Your task to perform on an android device: open sync settings in chrome Image 0: 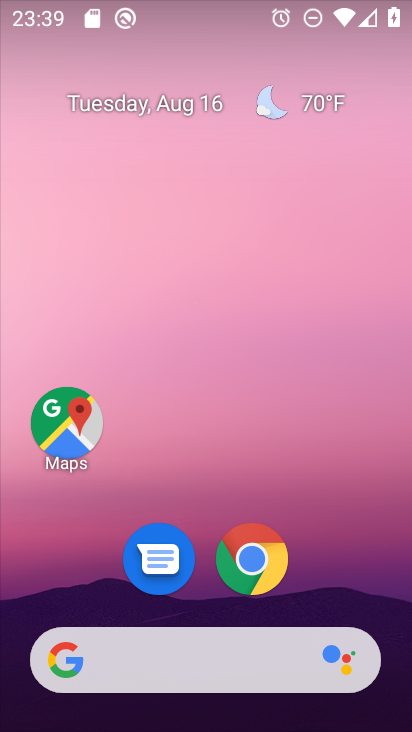
Step 0: click (247, 559)
Your task to perform on an android device: open sync settings in chrome Image 1: 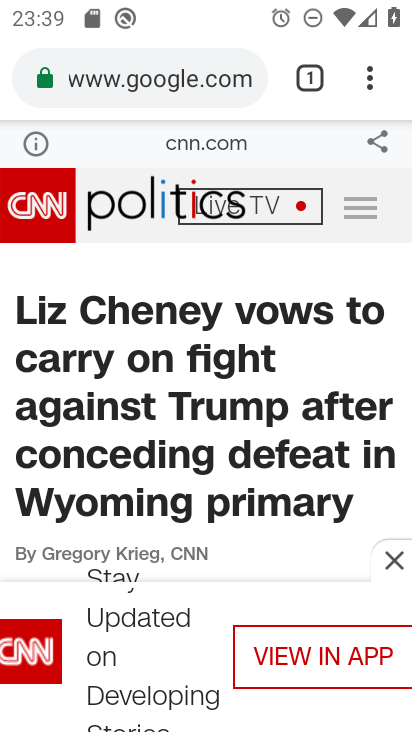
Step 1: click (386, 83)
Your task to perform on an android device: open sync settings in chrome Image 2: 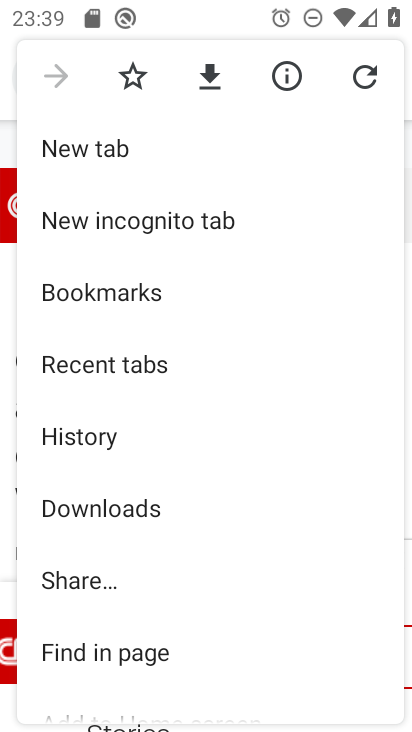
Step 2: drag from (116, 420) to (154, 367)
Your task to perform on an android device: open sync settings in chrome Image 3: 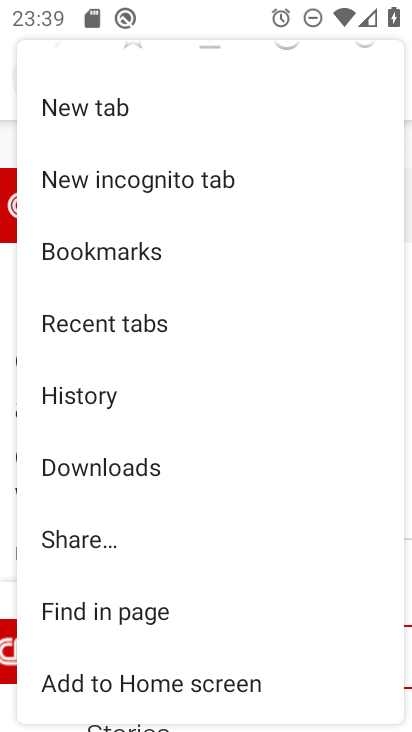
Step 3: drag from (121, 432) to (163, 364)
Your task to perform on an android device: open sync settings in chrome Image 4: 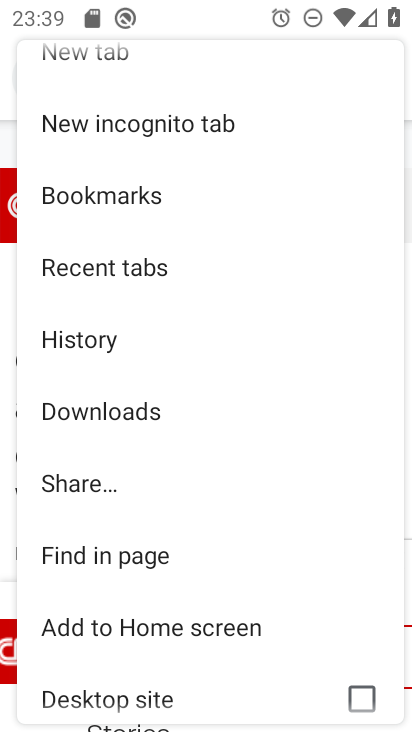
Step 4: drag from (68, 530) to (151, 416)
Your task to perform on an android device: open sync settings in chrome Image 5: 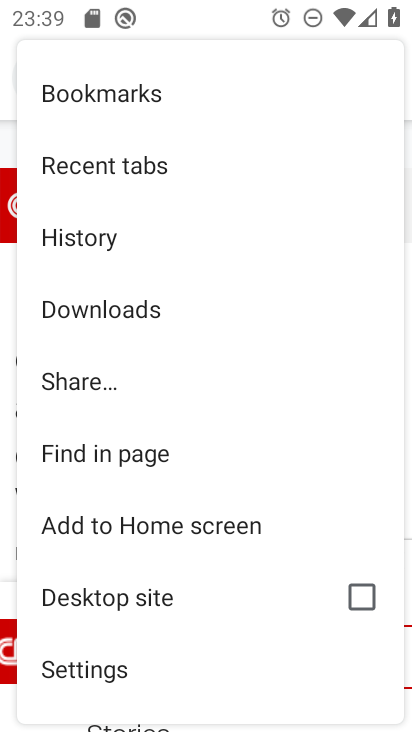
Step 5: drag from (159, 576) to (207, 473)
Your task to perform on an android device: open sync settings in chrome Image 6: 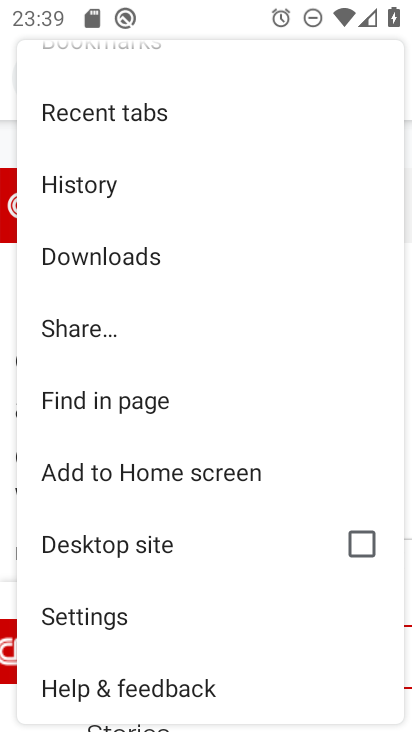
Step 6: drag from (115, 582) to (166, 486)
Your task to perform on an android device: open sync settings in chrome Image 7: 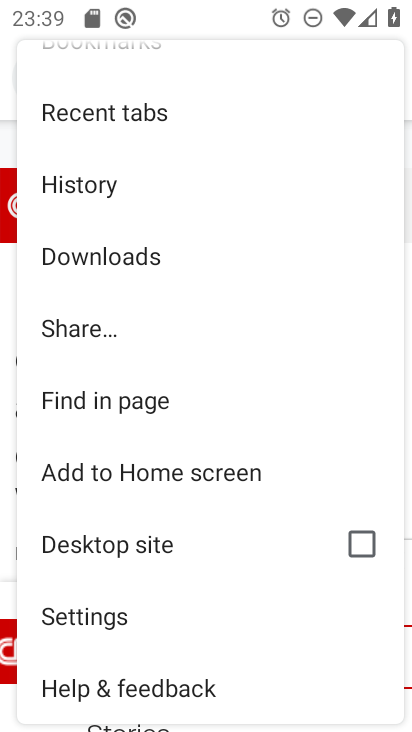
Step 7: click (95, 619)
Your task to perform on an android device: open sync settings in chrome Image 8: 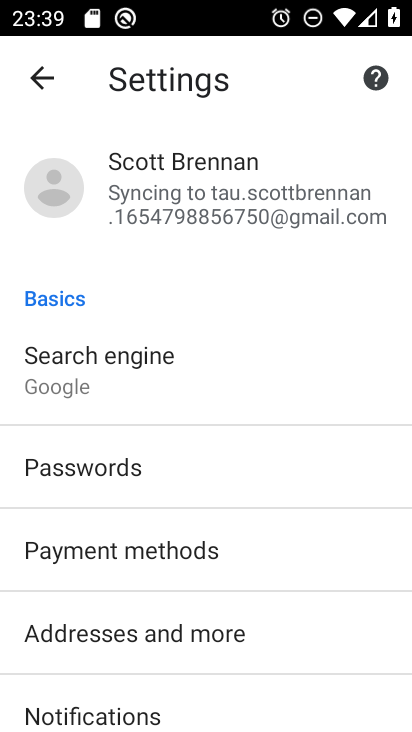
Step 8: drag from (125, 427) to (223, 303)
Your task to perform on an android device: open sync settings in chrome Image 9: 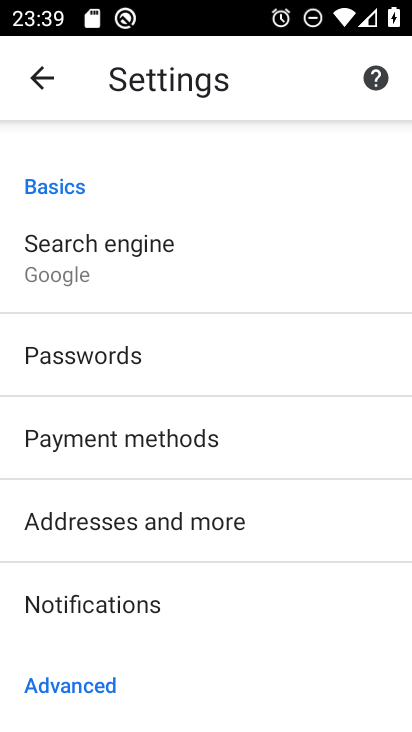
Step 9: drag from (134, 545) to (224, 422)
Your task to perform on an android device: open sync settings in chrome Image 10: 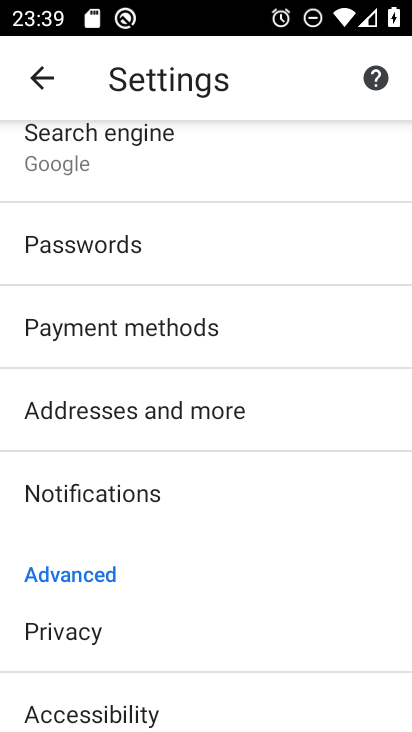
Step 10: drag from (186, 520) to (267, 411)
Your task to perform on an android device: open sync settings in chrome Image 11: 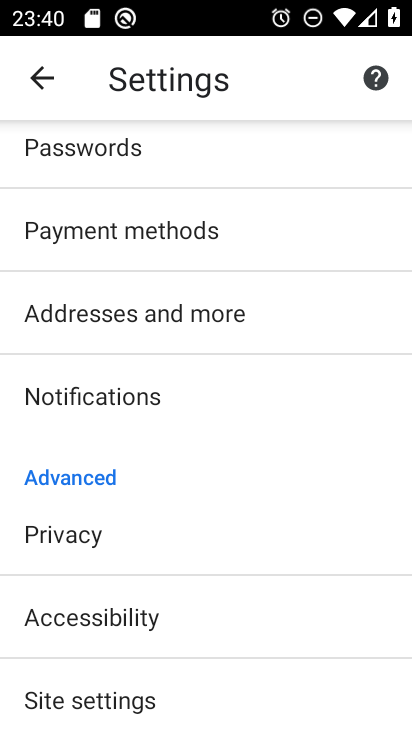
Step 11: drag from (187, 513) to (251, 426)
Your task to perform on an android device: open sync settings in chrome Image 12: 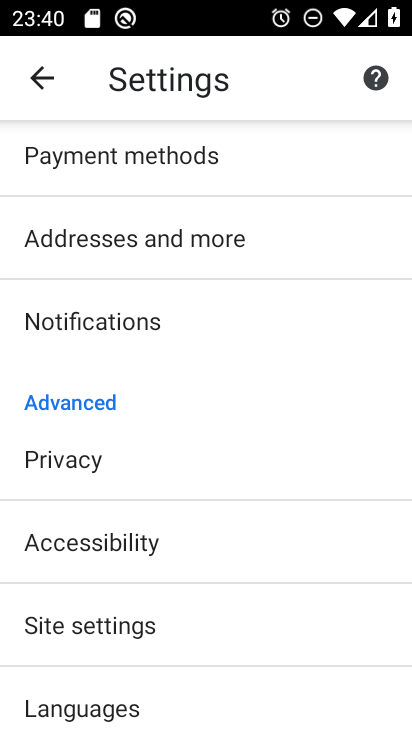
Step 12: drag from (196, 551) to (245, 464)
Your task to perform on an android device: open sync settings in chrome Image 13: 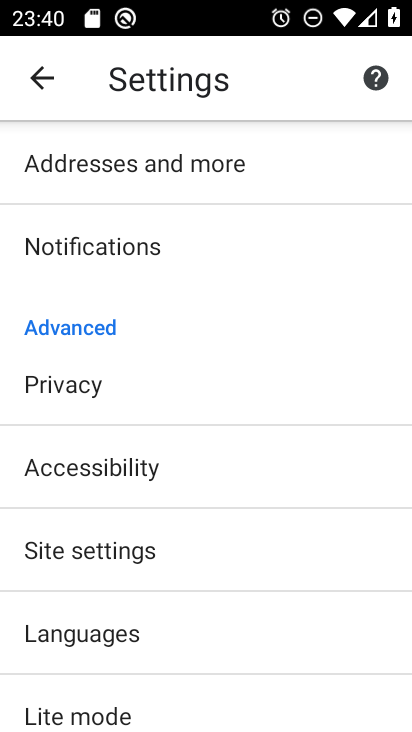
Step 13: drag from (179, 540) to (235, 445)
Your task to perform on an android device: open sync settings in chrome Image 14: 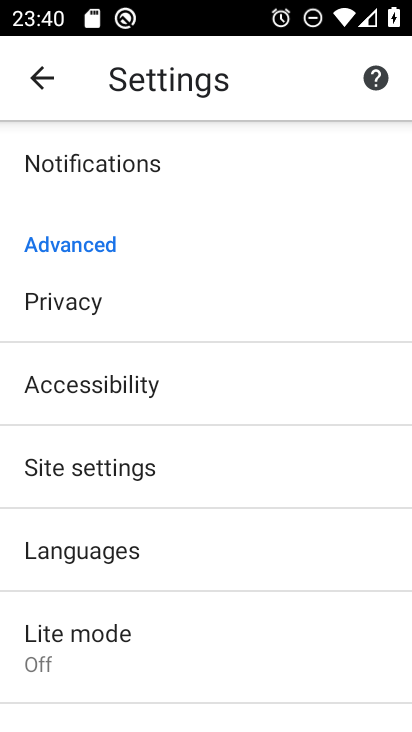
Step 14: drag from (187, 529) to (260, 447)
Your task to perform on an android device: open sync settings in chrome Image 15: 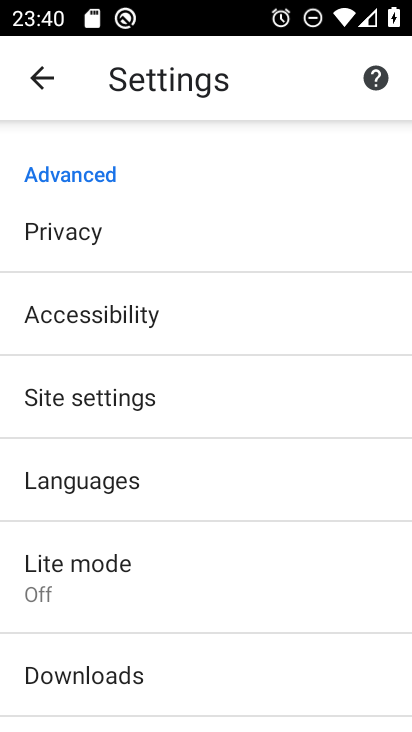
Step 15: drag from (174, 575) to (247, 477)
Your task to perform on an android device: open sync settings in chrome Image 16: 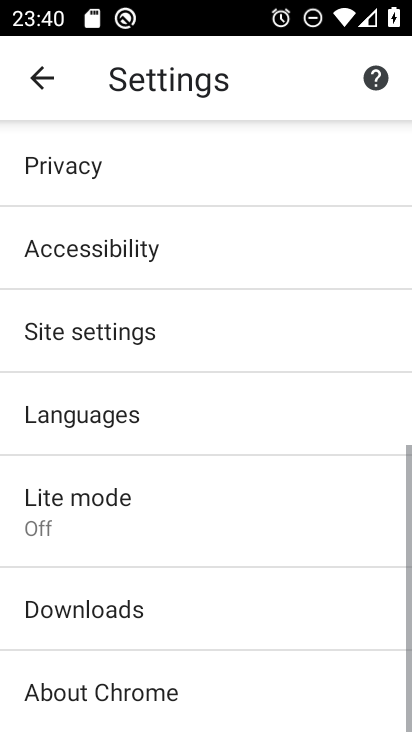
Step 16: drag from (223, 523) to (265, 478)
Your task to perform on an android device: open sync settings in chrome Image 17: 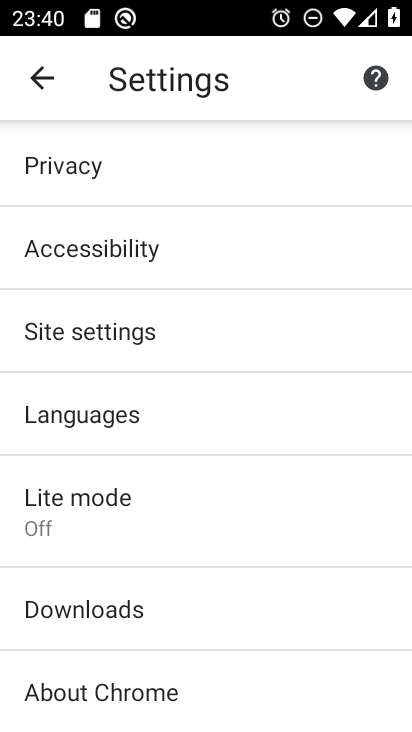
Step 17: drag from (187, 591) to (251, 515)
Your task to perform on an android device: open sync settings in chrome Image 18: 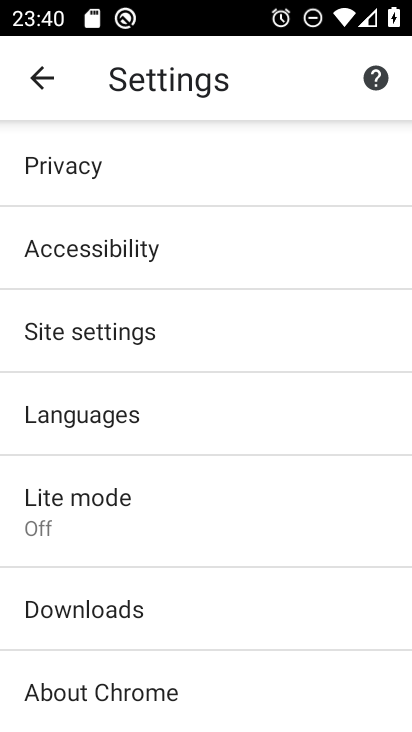
Step 18: click (125, 342)
Your task to perform on an android device: open sync settings in chrome Image 19: 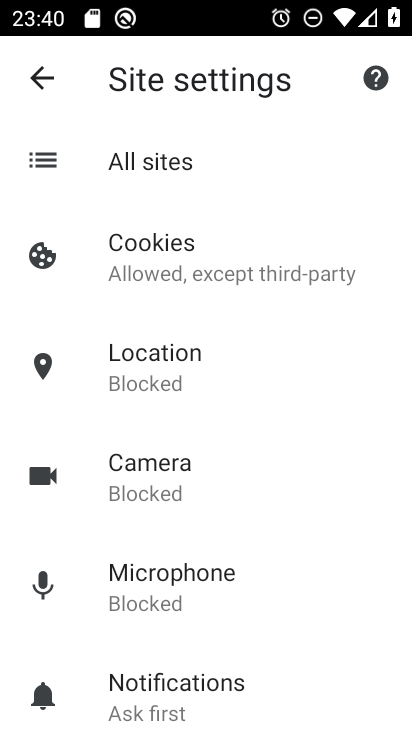
Step 19: drag from (204, 511) to (265, 423)
Your task to perform on an android device: open sync settings in chrome Image 20: 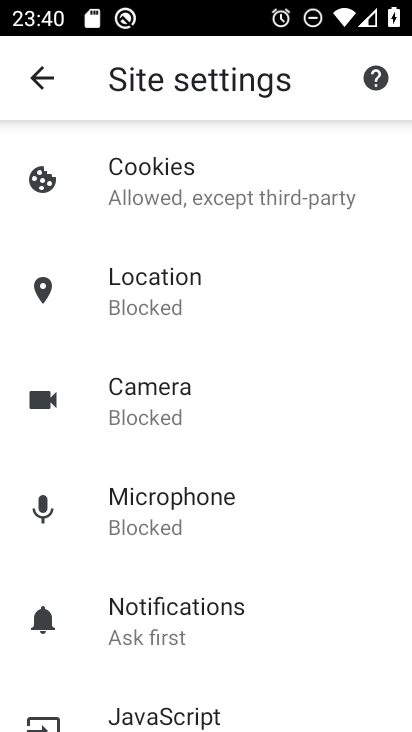
Step 20: drag from (171, 580) to (261, 459)
Your task to perform on an android device: open sync settings in chrome Image 21: 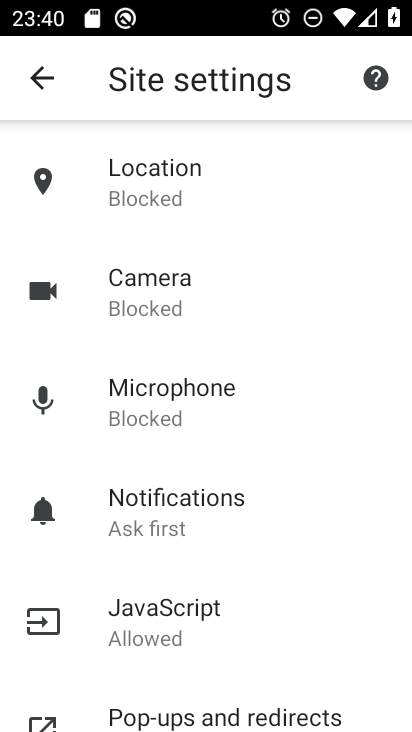
Step 21: drag from (195, 570) to (280, 407)
Your task to perform on an android device: open sync settings in chrome Image 22: 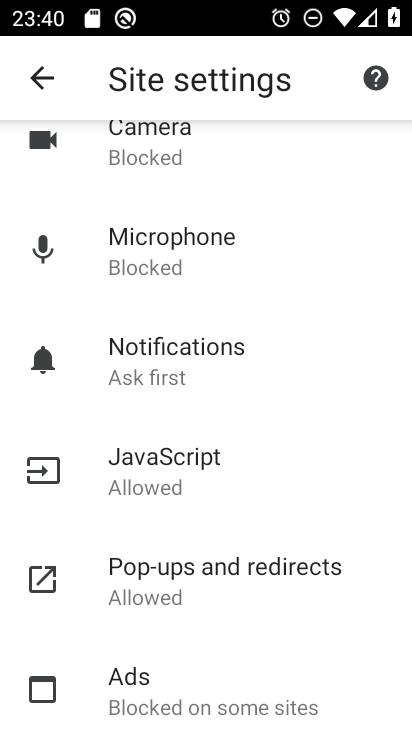
Step 22: drag from (230, 511) to (283, 377)
Your task to perform on an android device: open sync settings in chrome Image 23: 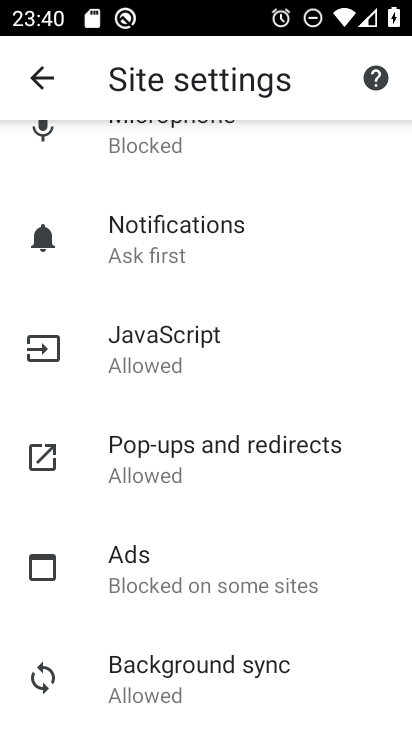
Step 23: drag from (163, 537) to (195, 442)
Your task to perform on an android device: open sync settings in chrome Image 24: 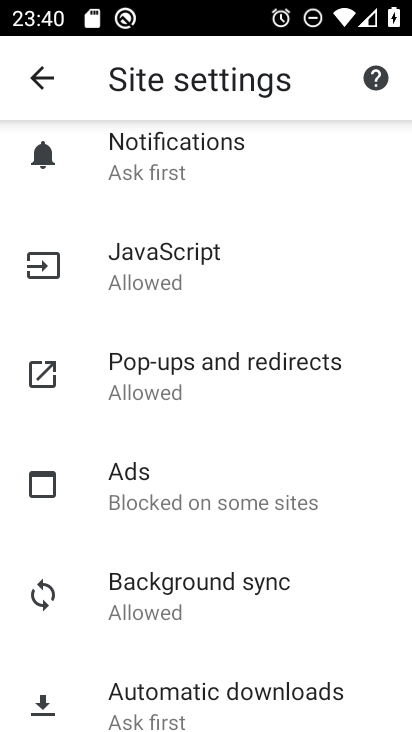
Step 24: click (250, 598)
Your task to perform on an android device: open sync settings in chrome Image 25: 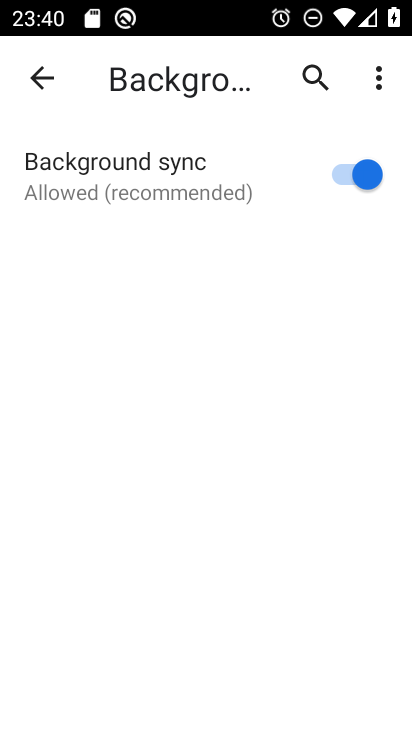
Step 25: task complete